Your task to perform on an android device: turn vacation reply on in the gmail app Image 0: 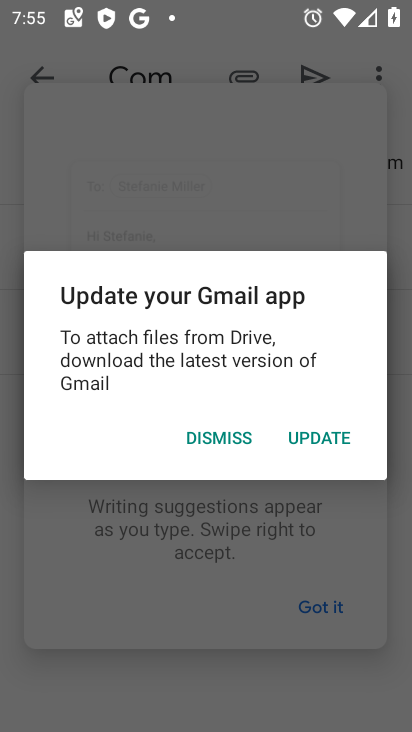
Step 0: press home button
Your task to perform on an android device: turn vacation reply on in the gmail app Image 1: 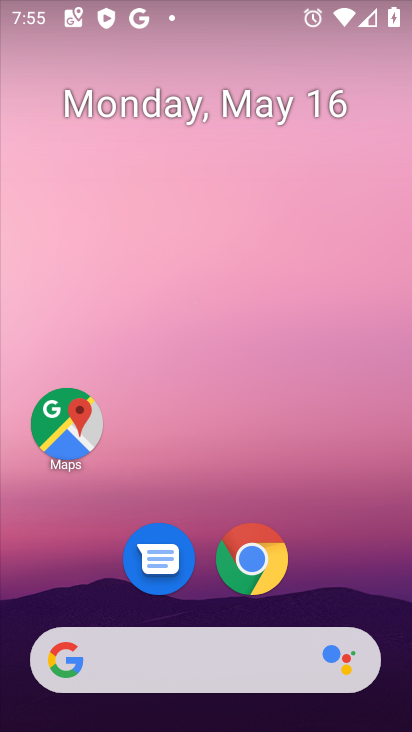
Step 1: drag from (358, 572) to (311, 212)
Your task to perform on an android device: turn vacation reply on in the gmail app Image 2: 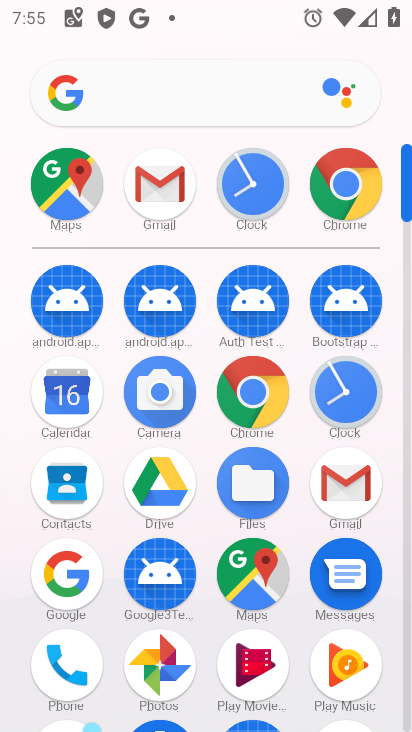
Step 2: click (152, 189)
Your task to perform on an android device: turn vacation reply on in the gmail app Image 3: 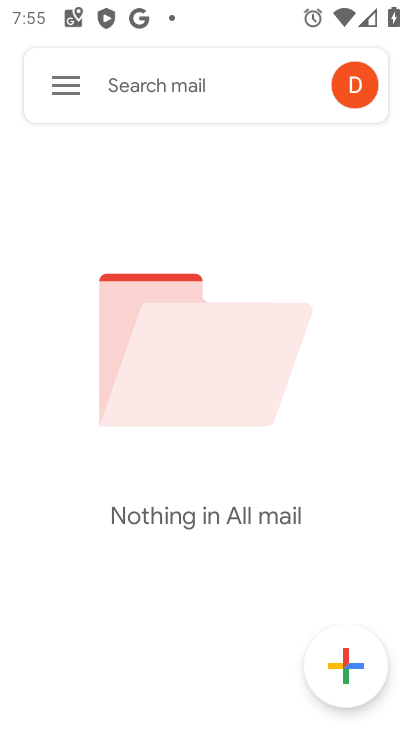
Step 3: click (56, 83)
Your task to perform on an android device: turn vacation reply on in the gmail app Image 4: 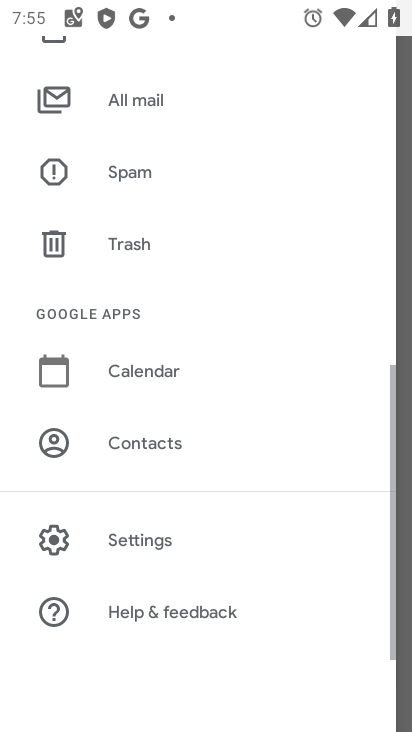
Step 4: click (146, 540)
Your task to perform on an android device: turn vacation reply on in the gmail app Image 5: 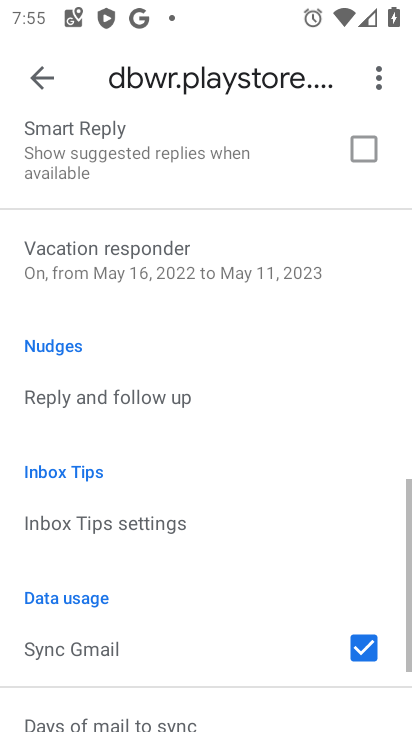
Step 5: drag from (179, 606) to (257, 141)
Your task to perform on an android device: turn vacation reply on in the gmail app Image 6: 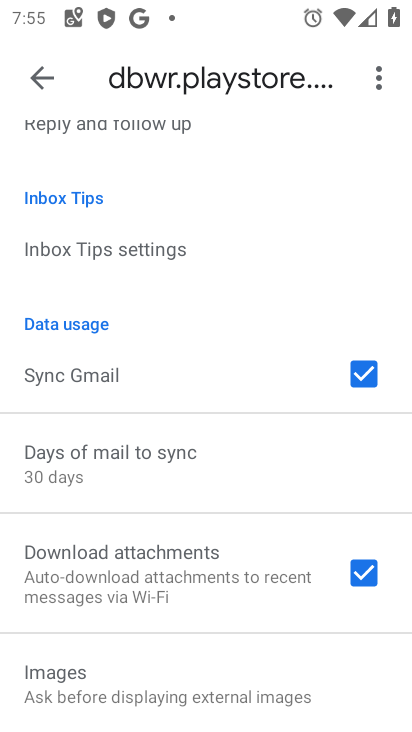
Step 6: drag from (237, 159) to (244, 559)
Your task to perform on an android device: turn vacation reply on in the gmail app Image 7: 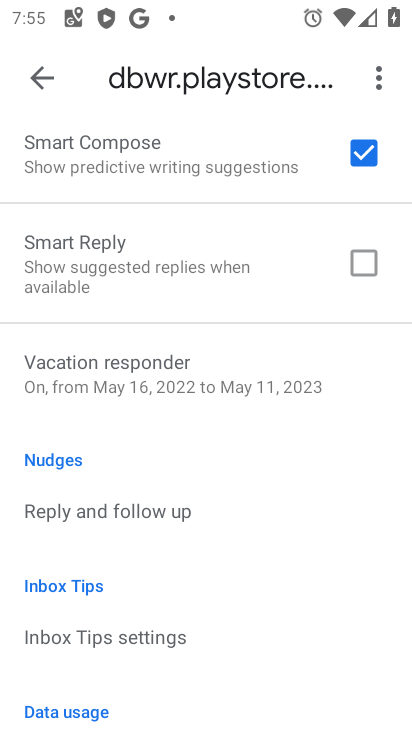
Step 7: click (200, 367)
Your task to perform on an android device: turn vacation reply on in the gmail app Image 8: 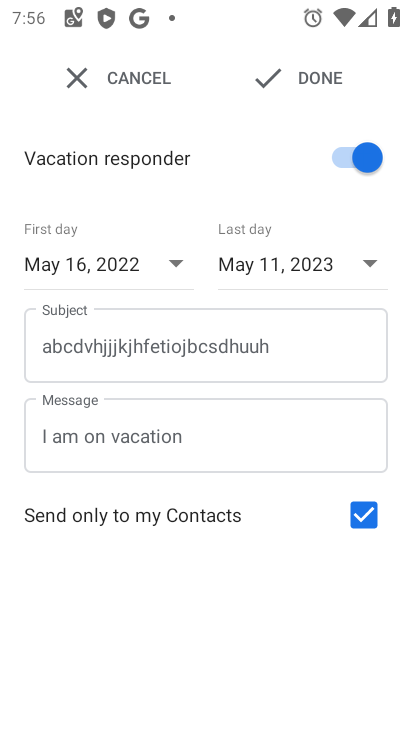
Step 8: task complete